Your task to perform on an android device: check out phone information Image 0: 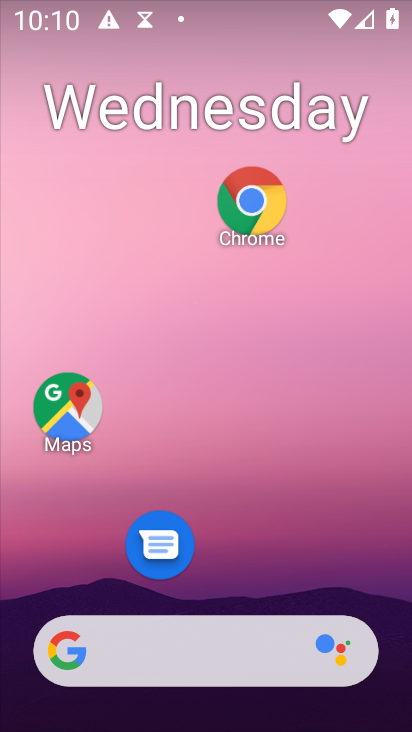
Step 0: drag from (336, 511) to (330, 141)
Your task to perform on an android device: check out phone information Image 1: 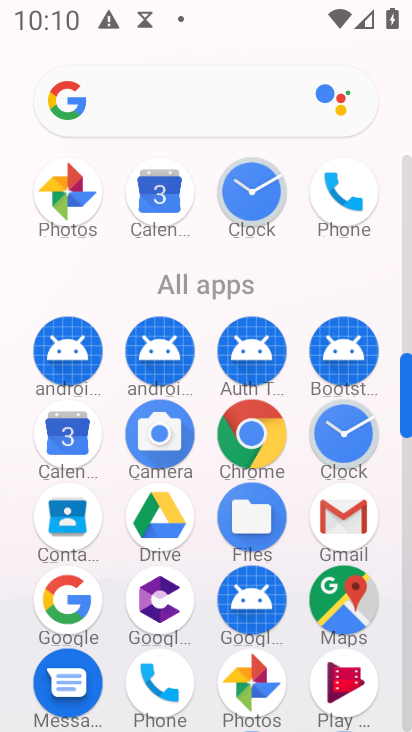
Step 1: drag from (203, 636) to (187, 292)
Your task to perform on an android device: check out phone information Image 2: 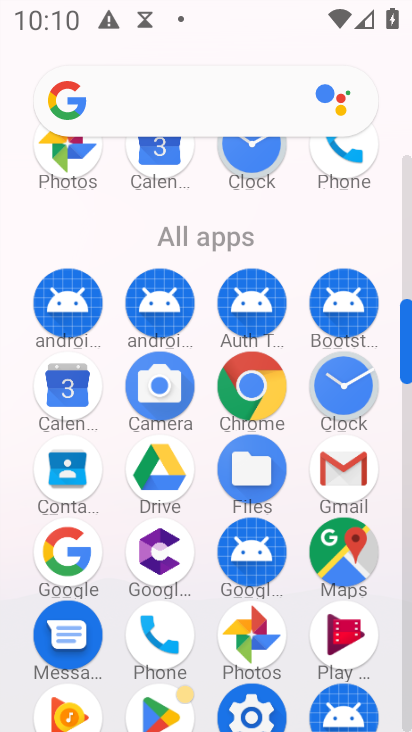
Step 2: click (255, 707)
Your task to perform on an android device: check out phone information Image 3: 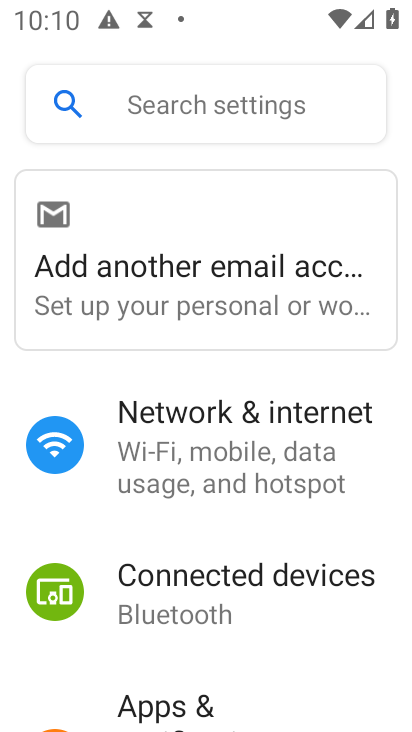
Step 3: drag from (222, 655) to (203, 418)
Your task to perform on an android device: check out phone information Image 4: 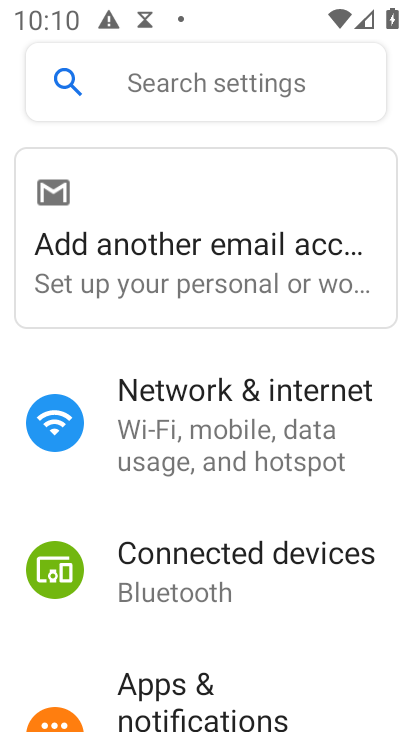
Step 4: drag from (189, 655) to (176, 286)
Your task to perform on an android device: check out phone information Image 5: 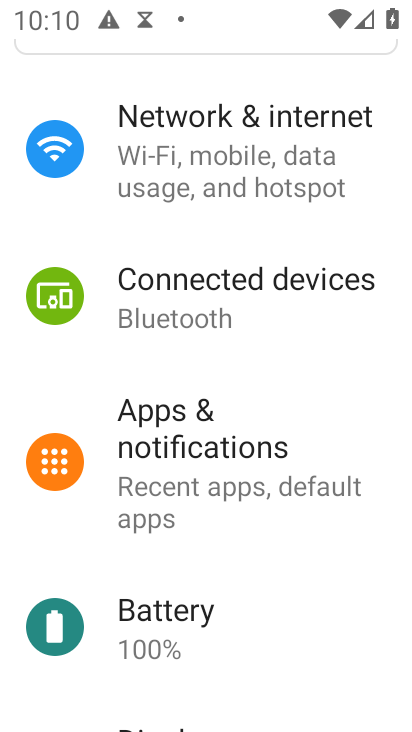
Step 5: drag from (229, 651) to (229, 345)
Your task to perform on an android device: check out phone information Image 6: 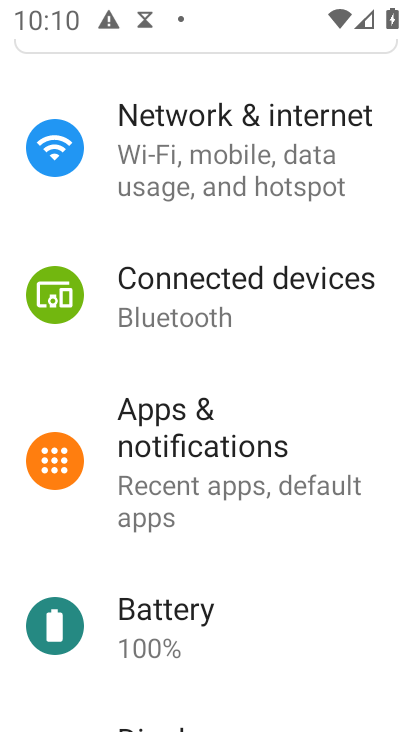
Step 6: drag from (262, 630) to (269, 142)
Your task to perform on an android device: check out phone information Image 7: 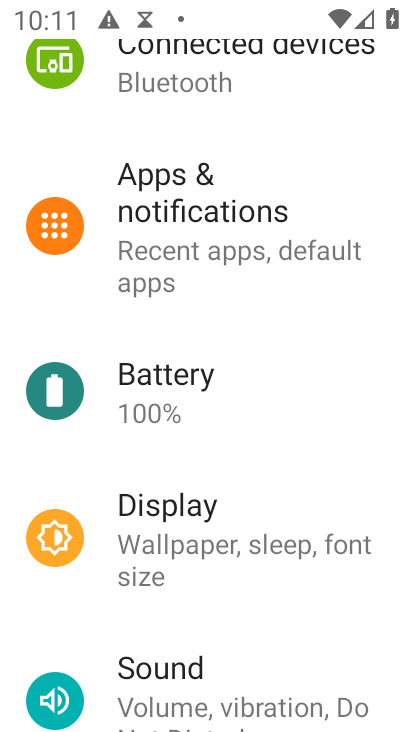
Step 7: drag from (259, 647) to (259, 48)
Your task to perform on an android device: check out phone information Image 8: 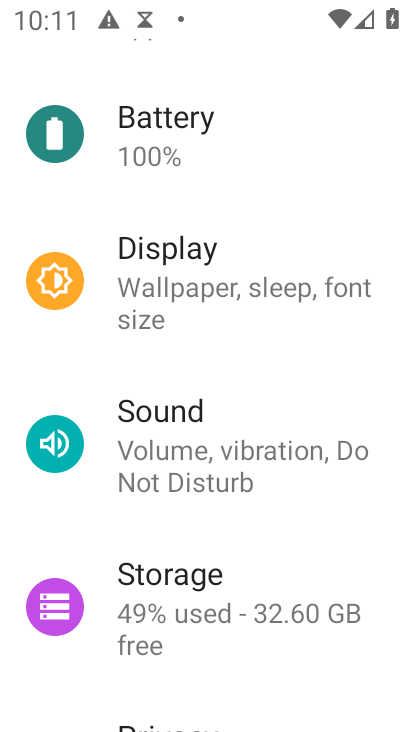
Step 8: drag from (285, 642) to (207, 60)
Your task to perform on an android device: check out phone information Image 9: 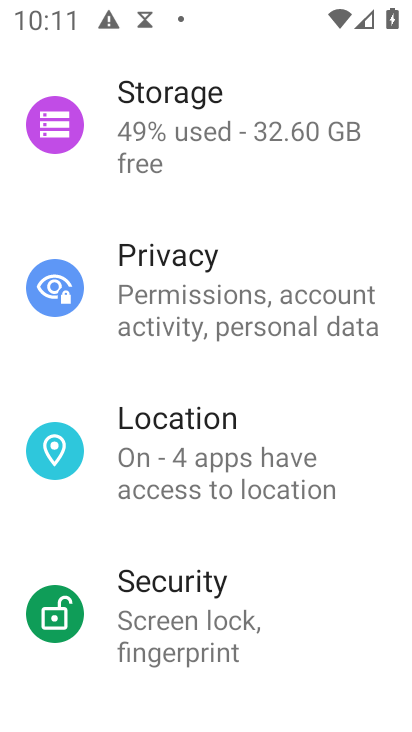
Step 9: drag from (225, 595) to (220, 125)
Your task to perform on an android device: check out phone information Image 10: 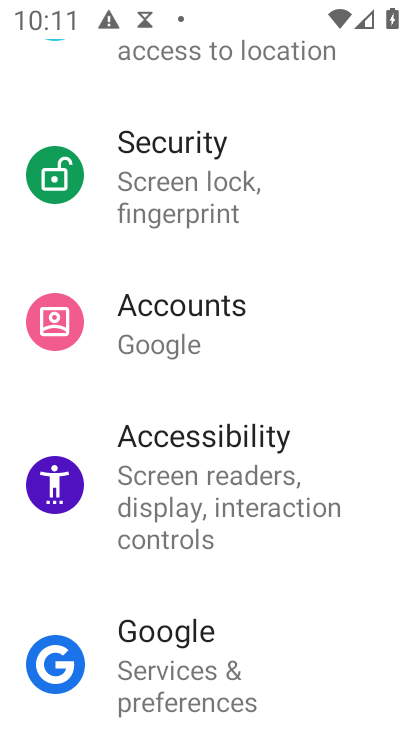
Step 10: drag from (319, 509) to (308, 27)
Your task to perform on an android device: check out phone information Image 11: 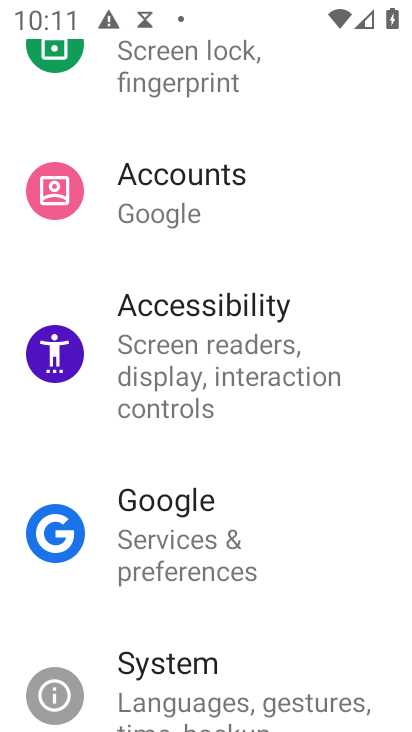
Step 11: drag from (274, 538) to (286, 186)
Your task to perform on an android device: check out phone information Image 12: 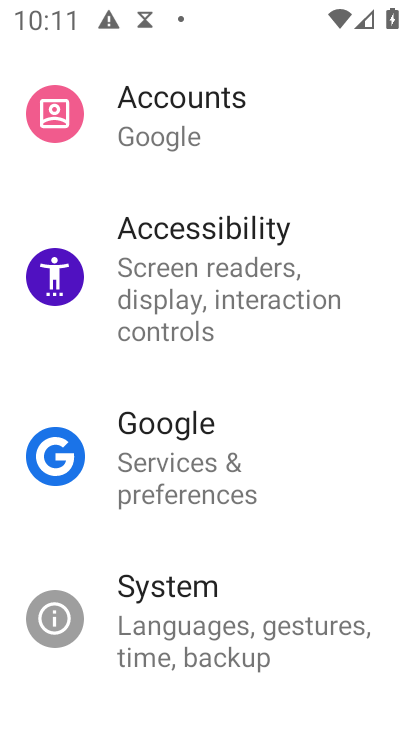
Step 12: drag from (263, 548) to (232, 190)
Your task to perform on an android device: check out phone information Image 13: 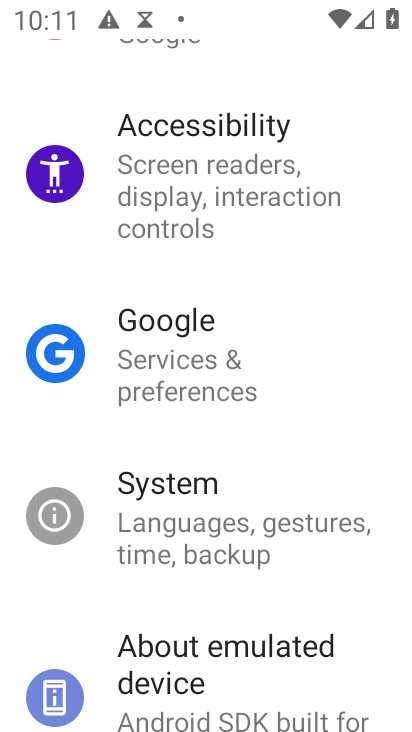
Step 13: click (225, 647)
Your task to perform on an android device: check out phone information Image 14: 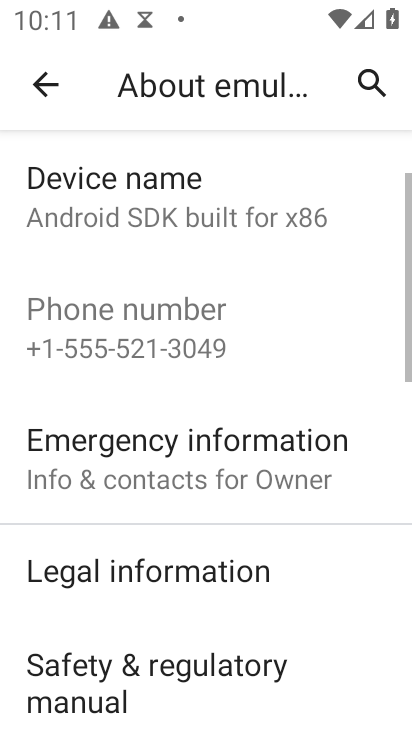
Step 14: task complete